Your task to perform on an android device: Go to Amazon Image 0: 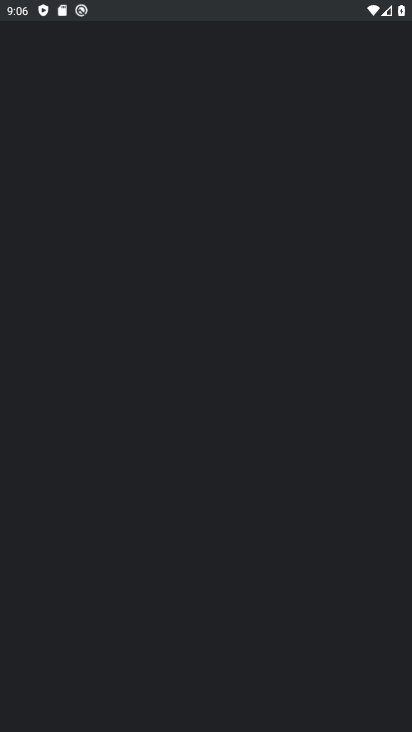
Step 0: drag from (243, 629) to (280, 290)
Your task to perform on an android device: Go to Amazon Image 1: 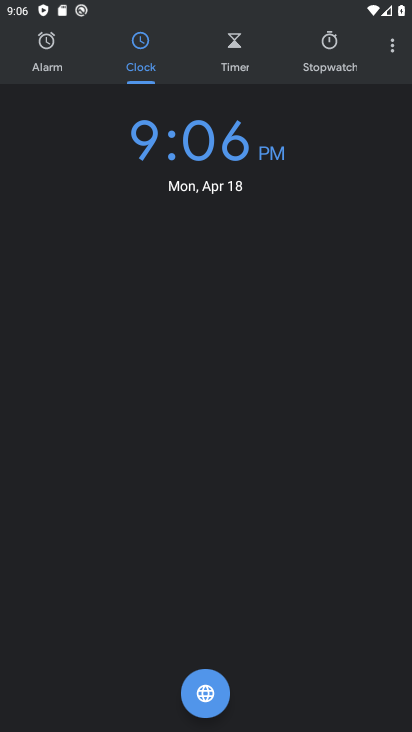
Step 1: press home button
Your task to perform on an android device: Go to Amazon Image 2: 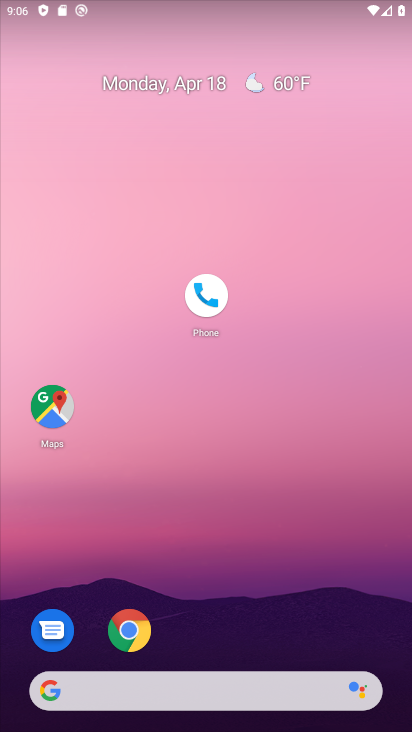
Step 2: drag from (274, 630) to (360, 150)
Your task to perform on an android device: Go to Amazon Image 3: 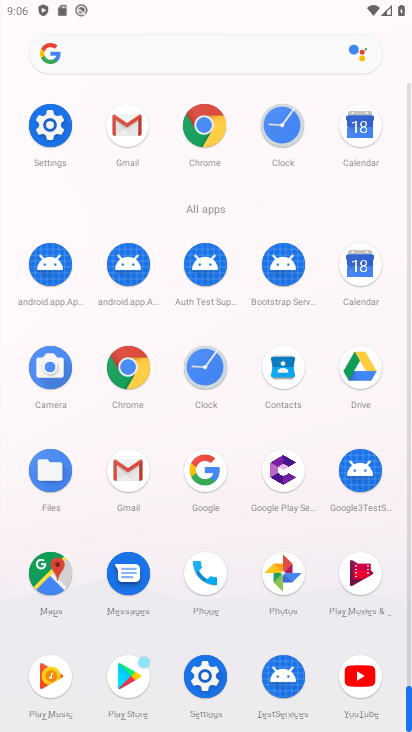
Step 3: click (135, 372)
Your task to perform on an android device: Go to Amazon Image 4: 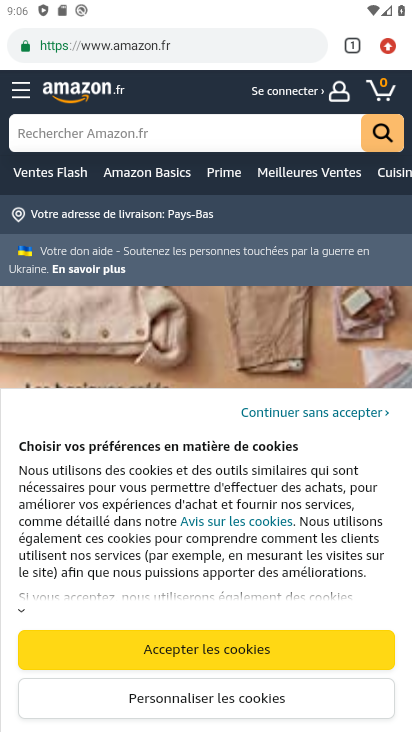
Step 4: task complete